Your task to perform on an android device: Search for Italian restaurants on Maps Image 0: 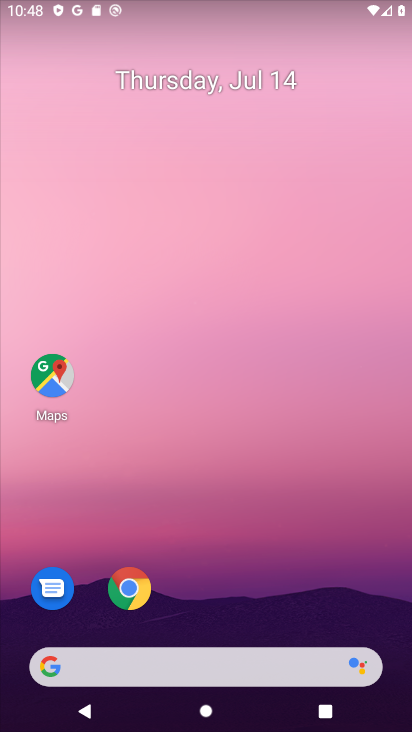
Step 0: press home button
Your task to perform on an android device: Search for Italian restaurants on Maps Image 1: 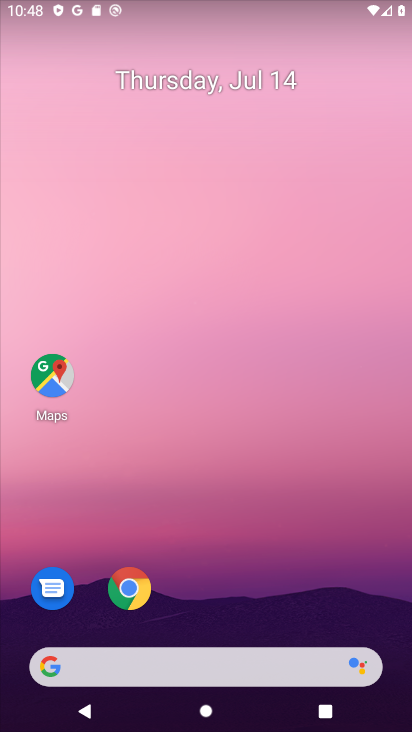
Step 1: drag from (337, 598) to (239, 25)
Your task to perform on an android device: Search for Italian restaurants on Maps Image 2: 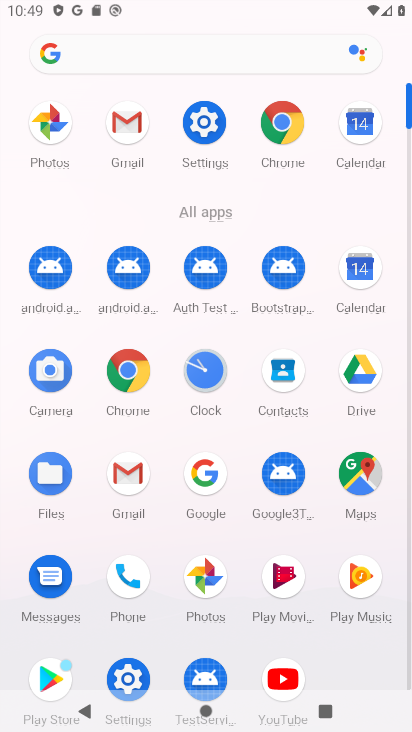
Step 2: click (126, 364)
Your task to perform on an android device: Search for Italian restaurants on Maps Image 3: 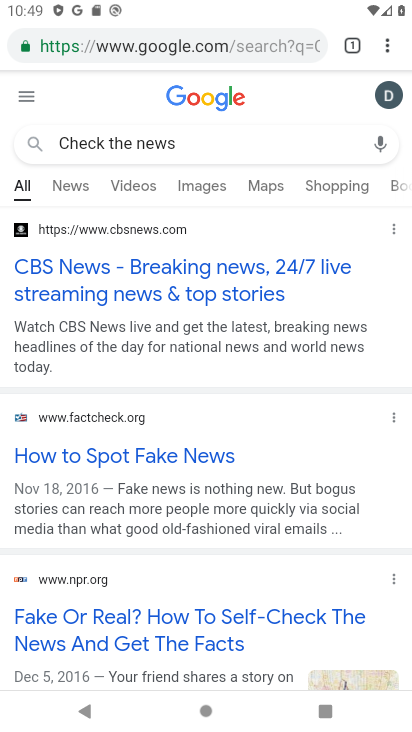
Step 3: click (196, 40)
Your task to perform on an android device: Search for Italian restaurants on Maps Image 4: 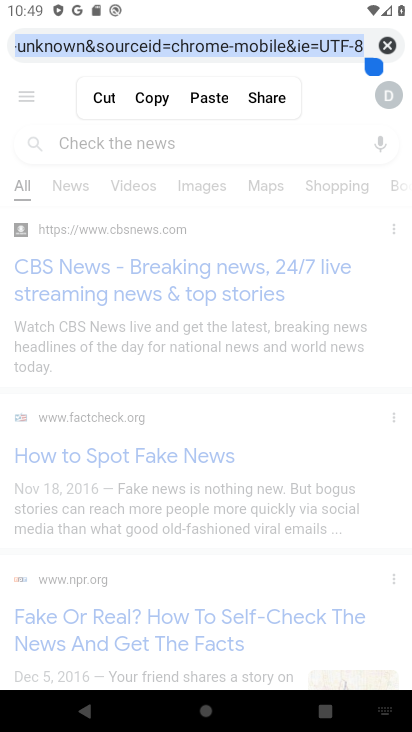
Step 4: type " Italian restaurants"
Your task to perform on an android device: Search for Italian restaurants on Maps Image 5: 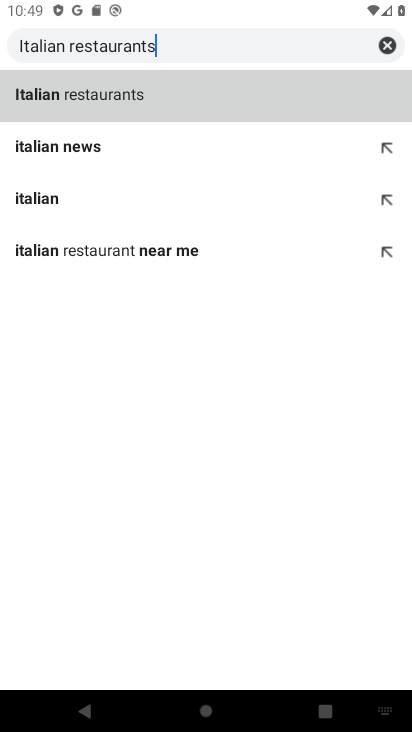
Step 5: type ""
Your task to perform on an android device: Search for Italian restaurants on Maps Image 6: 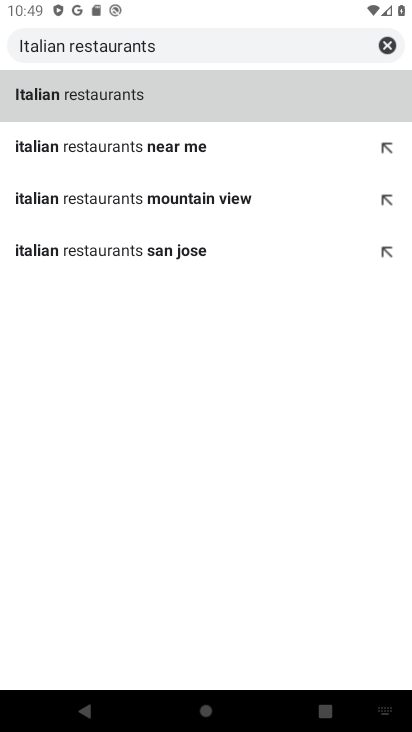
Step 6: press back button
Your task to perform on an android device: Search for Italian restaurants on Maps Image 7: 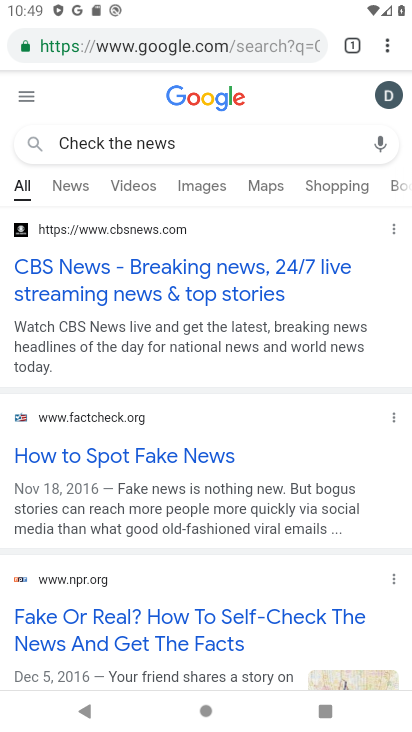
Step 7: press home button
Your task to perform on an android device: Search for Italian restaurants on Maps Image 8: 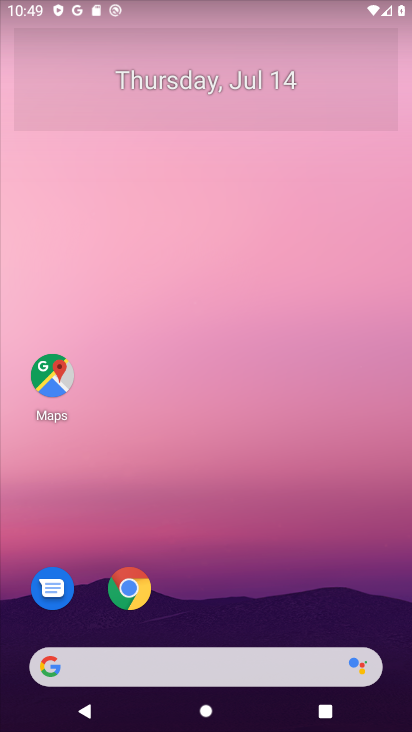
Step 8: click (34, 397)
Your task to perform on an android device: Search for Italian restaurants on Maps Image 9: 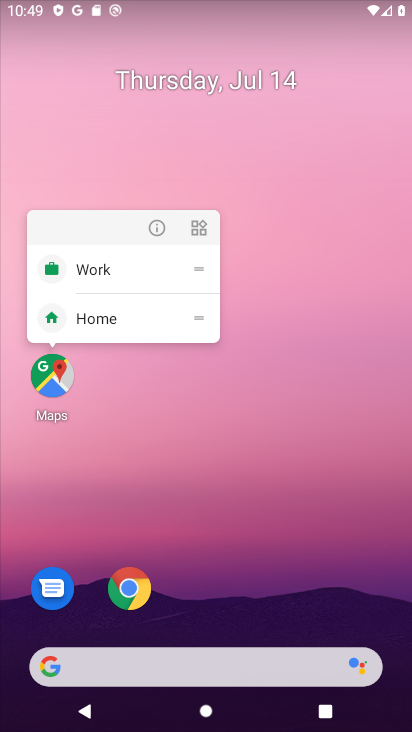
Step 9: click (46, 367)
Your task to perform on an android device: Search for Italian restaurants on Maps Image 10: 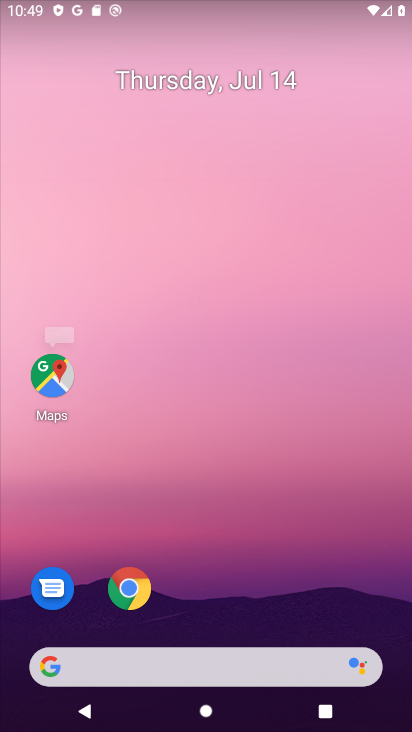
Step 10: click (46, 367)
Your task to perform on an android device: Search for Italian restaurants on Maps Image 11: 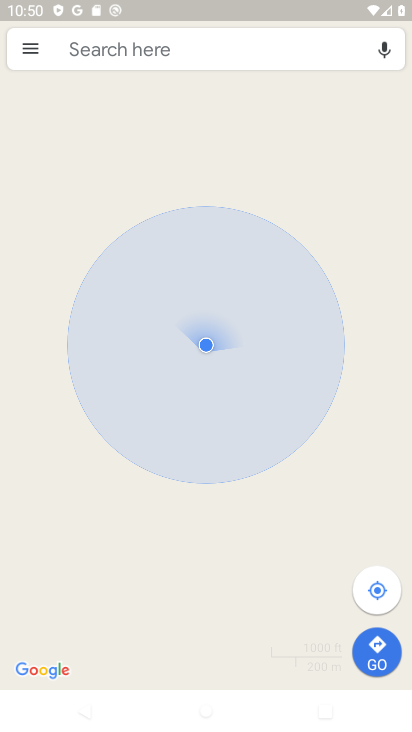
Step 11: click (188, 122)
Your task to perform on an android device: Search for Italian restaurants on Maps Image 12: 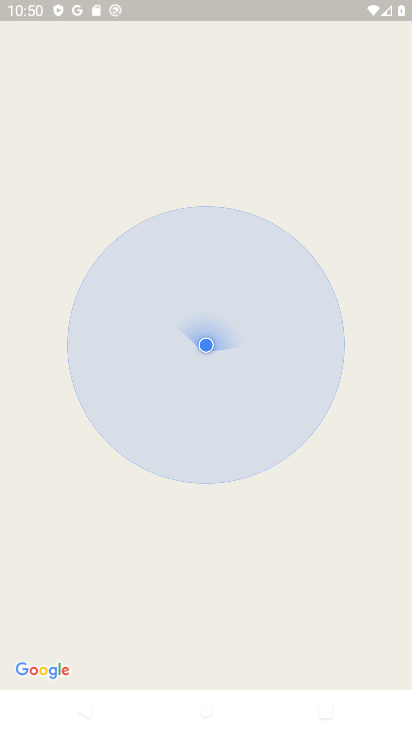
Step 12: click (188, 122)
Your task to perform on an android device: Search for Italian restaurants on Maps Image 13: 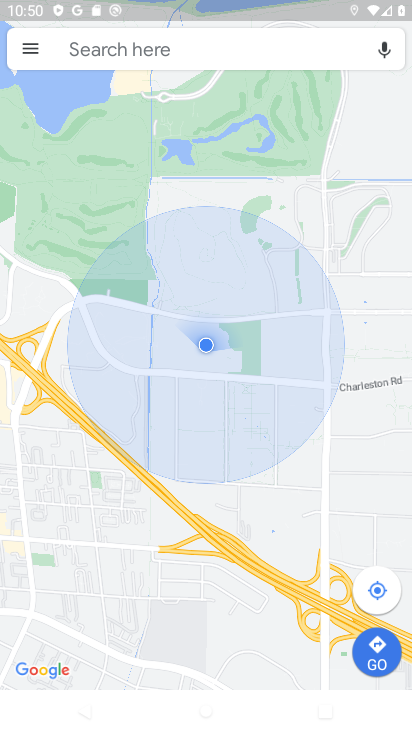
Step 13: click (246, 65)
Your task to perform on an android device: Search for Italian restaurants on Maps Image 14: 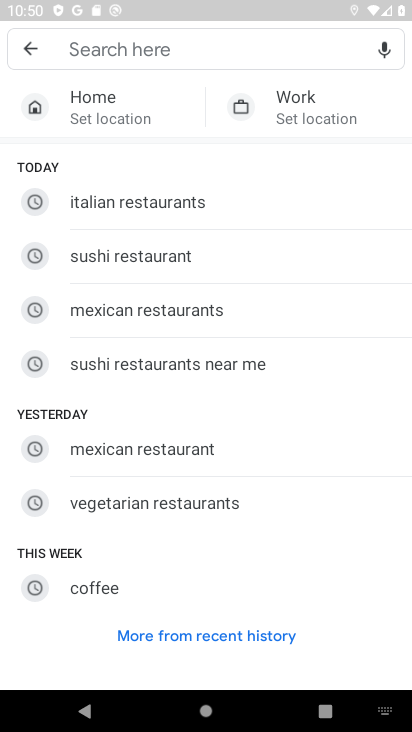
Step 14: type " Italian restaurants"
Your task to perform on an android device: Search for Italian restaurants on Maps Image 15: 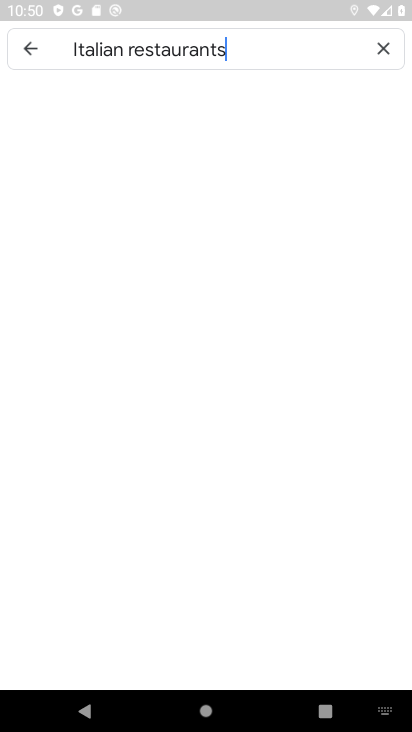
Step 15: type ""
Your task to perform on an android device: Search for Italian restaurants on Maps Image 16: 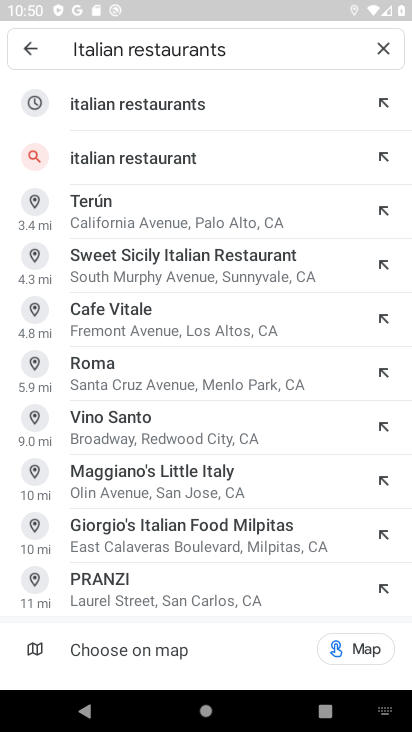
Step 16: click (177, 95)
Your task to perform on an android device: Search for Italian restaurants on Maps Image 17: 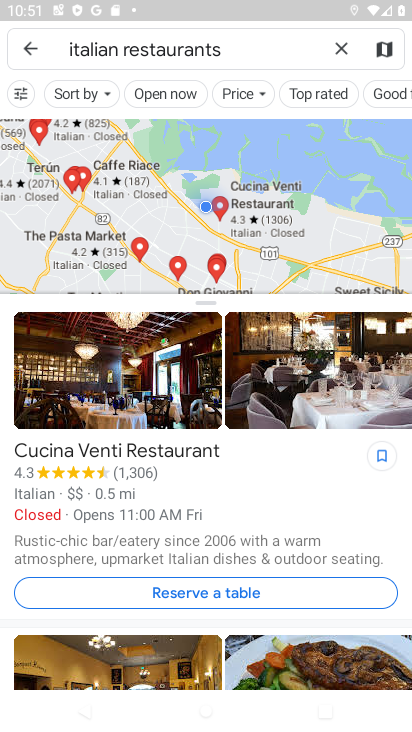
Step 17: task complete